Your task to perform on an android device: open a new tab in the chrome app Image 0: 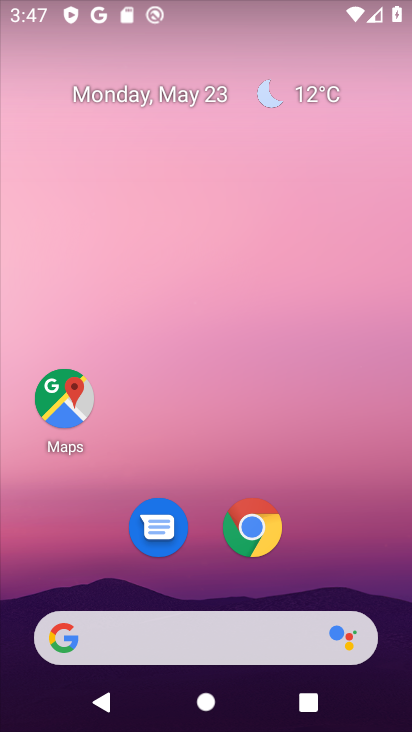
Step 0: press home button
Your task to perform on an android device: open a new tab in the chrome app Image 1: 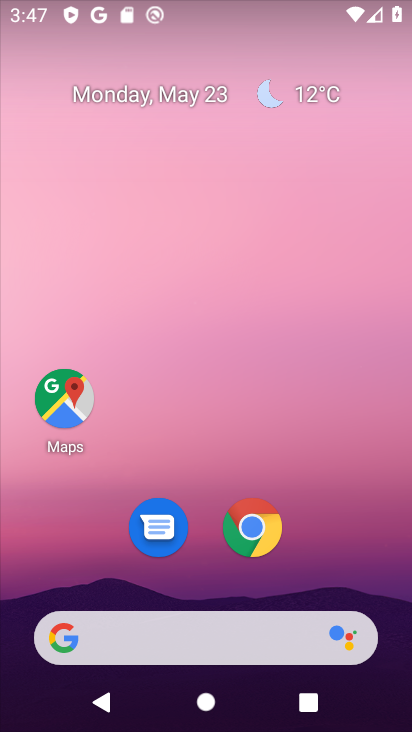
Step 1: click (249, 521)
Your task to perform on an android device: open a new tab in the chrome app Image 2: 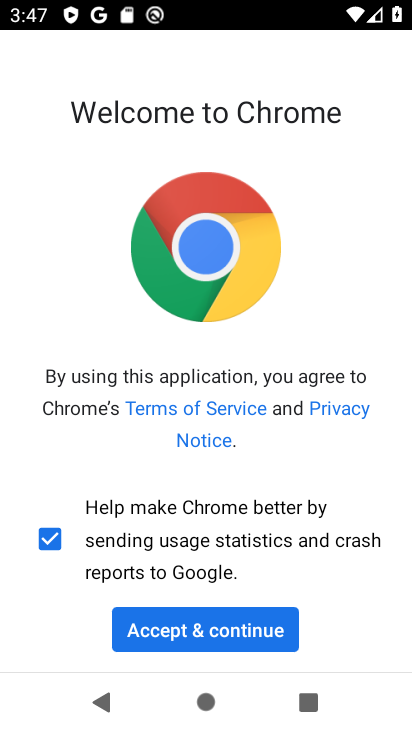
Step 2: click (195, 627)
Your task to perform on an android device: open a new tab in the chrome app Image 3: 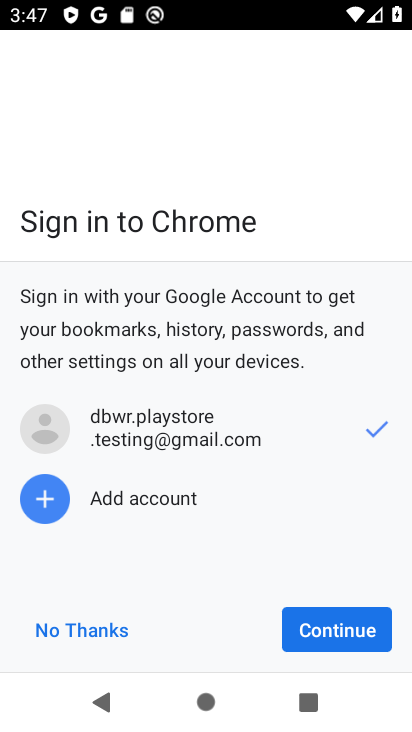
Step 3: click (338, 626)
Your task to perform on an android device: open a new tab in the chrome app Image 4: 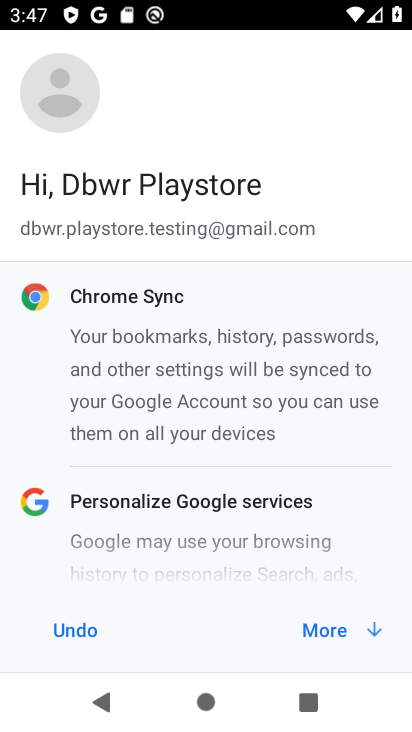
Step 4: click (328, 626)
Your task to perform on an android device: open a new tab in the chrome app Image 5: 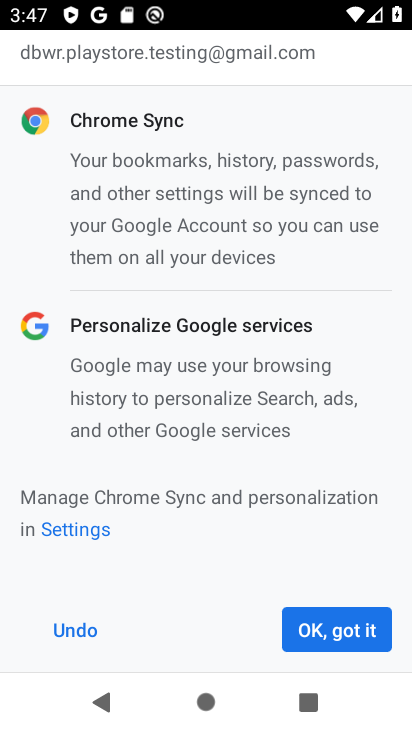
Step 5: click (334, 626)
Your task to perform on an android device: open a new tab in the chrome app Image 6: 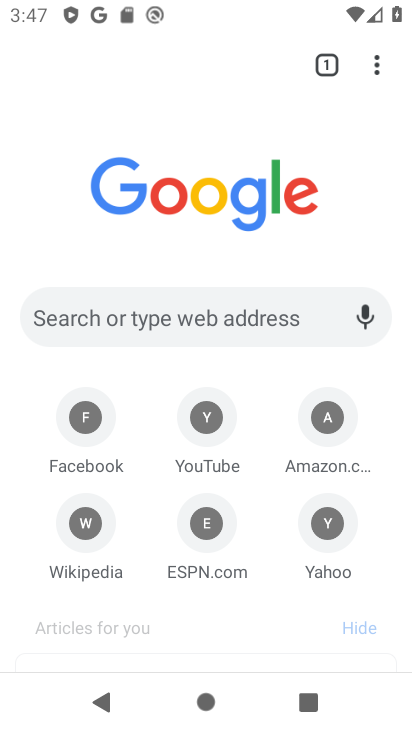
Step 6: click (325, 59)
Your task to perform on an android device: open a new tab in the chrome app Image 7: 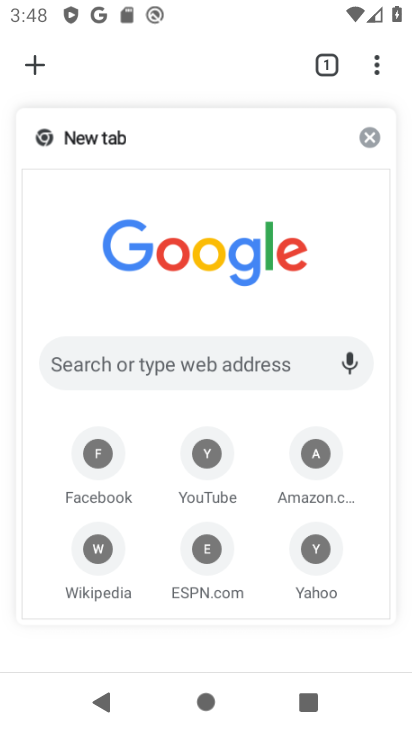
Step 7: click (38, 64)
Your task to perform on an android device: open a new tab in the chrome app Image 8: 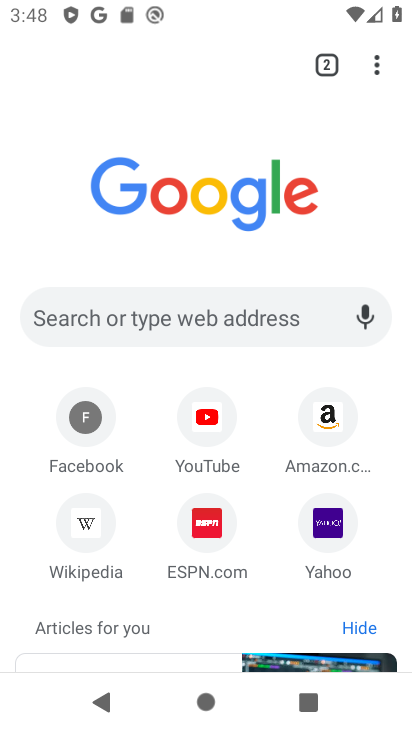
Step 8: task complete